Your task to perform on an android device: check data usage Image 0: 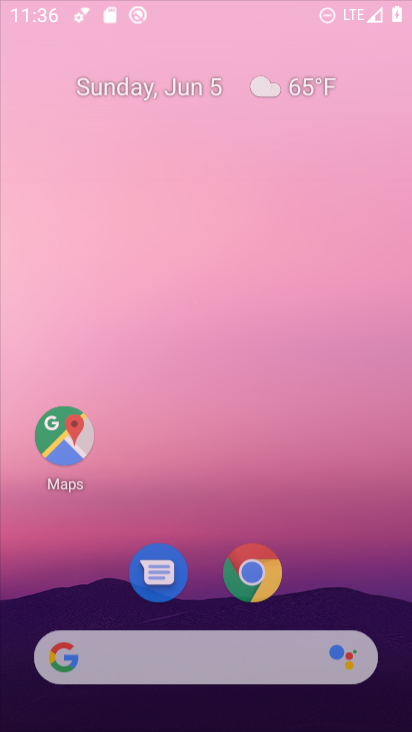
Step 0: click (53, 474)
Your task to perform on an android device: check data usage Image 1: 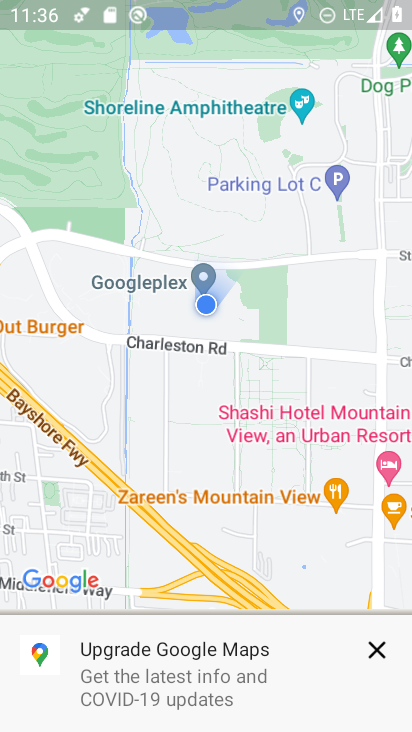
Step 1: drag from (241, 21) to (273, 651)
Your task to perform on an android device: check data usage Image 2: 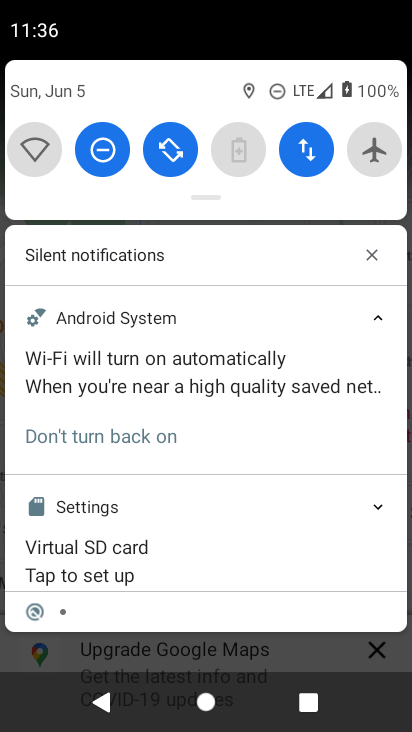
Step 2: click (315, 146)
Your task to perform on an android device: check data usage Image 3: 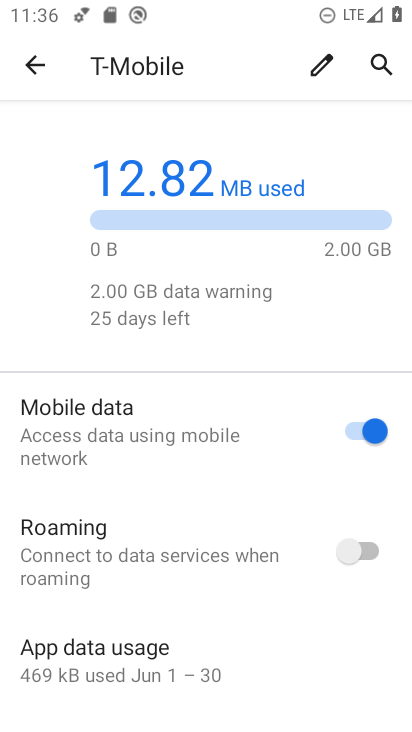
Step 3: task complete